Your task to perform on an android device: Go to notification settings Image 0: 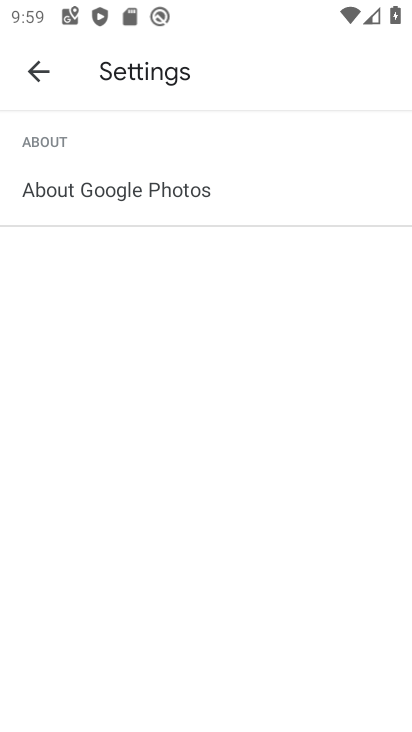
Step 0: press home button
Your task to perform on an android device: Go to notification settings Image 1: 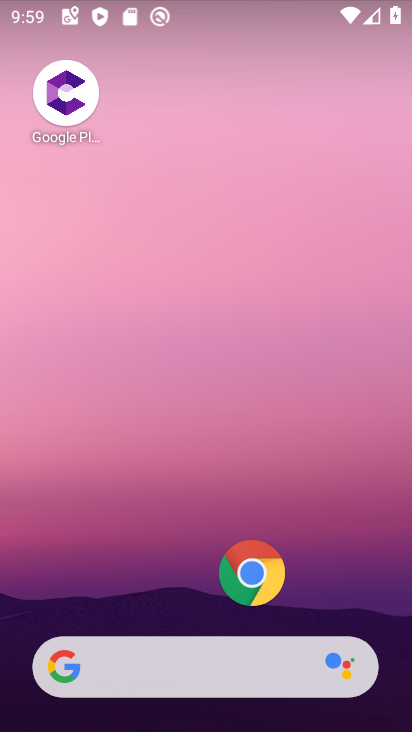
Step 1: drag from (178, 603) to (217, 59)
Your task to perform on an android device: Go to notification settings Image 2: 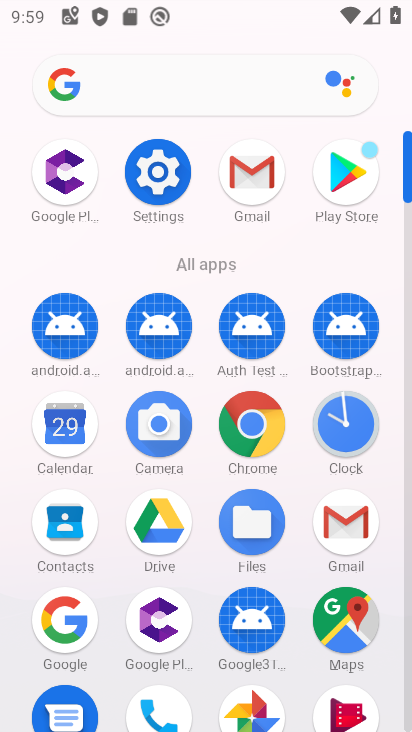
Step 2: click (164, 162)
Your task to perform on an android device: Go to notification settings Image 3: 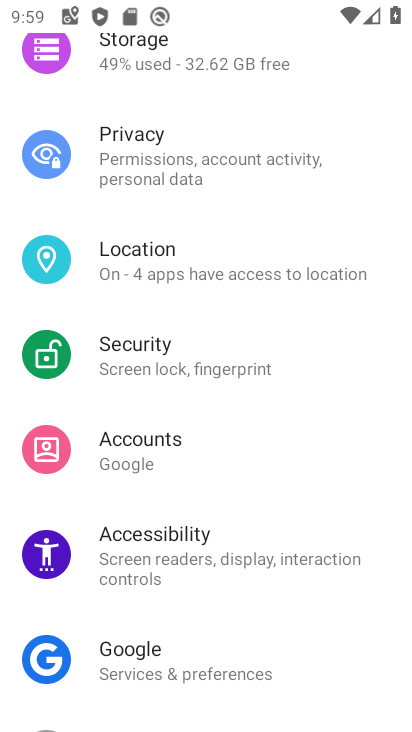
Step 3: drag from (134, 136) to (148, 723)
Your task to perform on an android device: Go to notification settings Image 4: 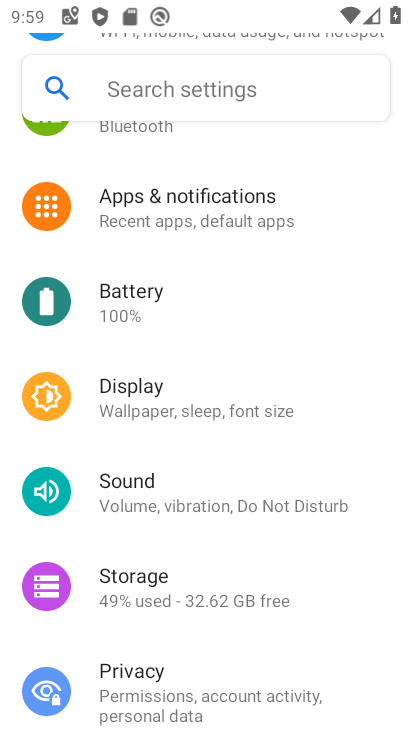
Step 4: click (191, 215)
Your task to perform on an android device: Go to notification settings Image 5: 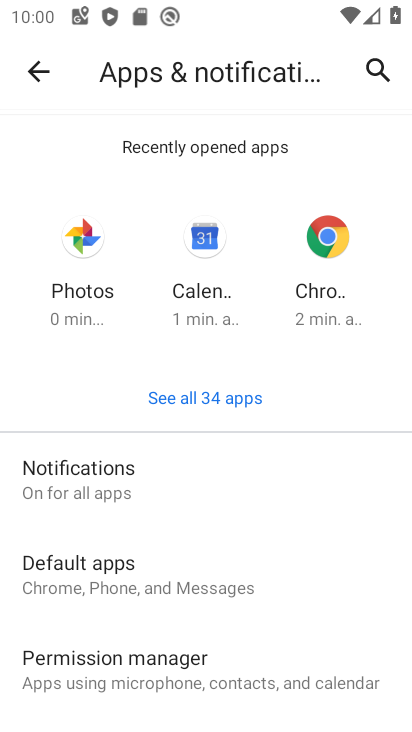
Step 5: task complete